Your task to perform on an android device: check google app version Image 0: 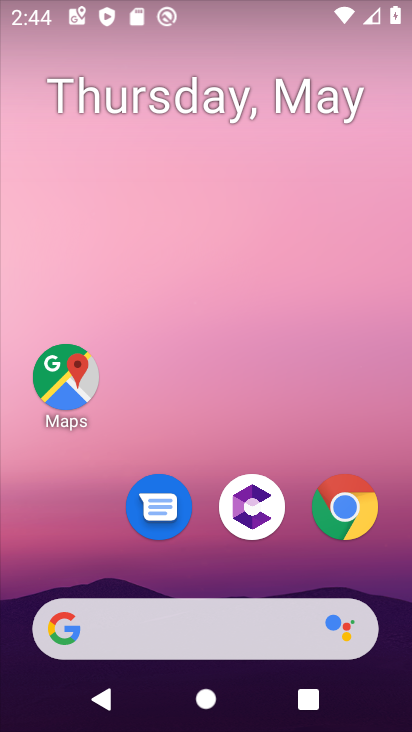
Step 0: press home button
Your task to perform on an android device: check google app version Image 1: 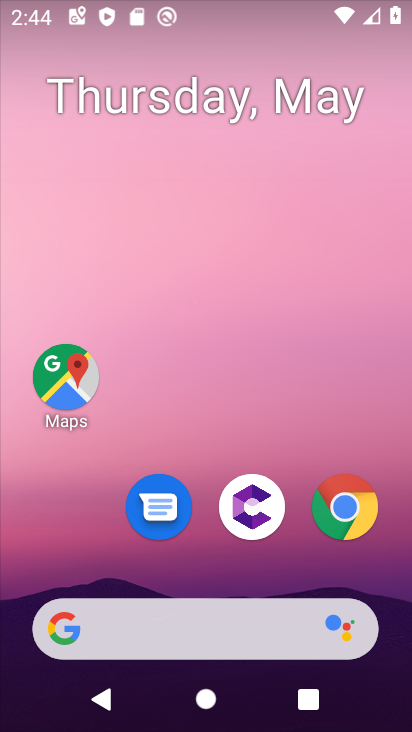
Step 1: press home button
Your task to perform on an android device: check google app version Image 2: 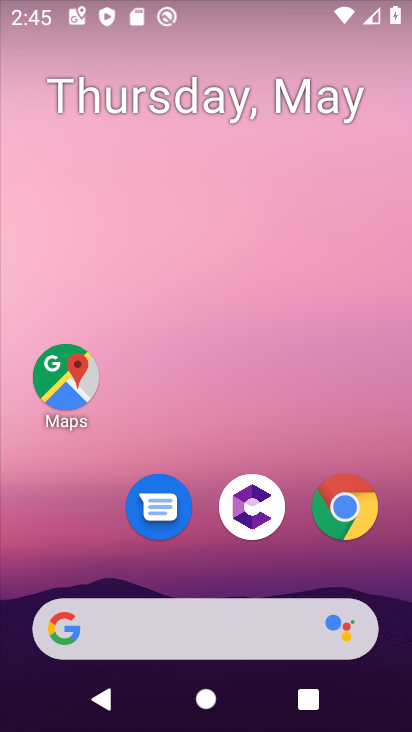
Step 2: drag from (304, 587) to (286, 222)
Your task to perform on an android device: check google app version Image 3: 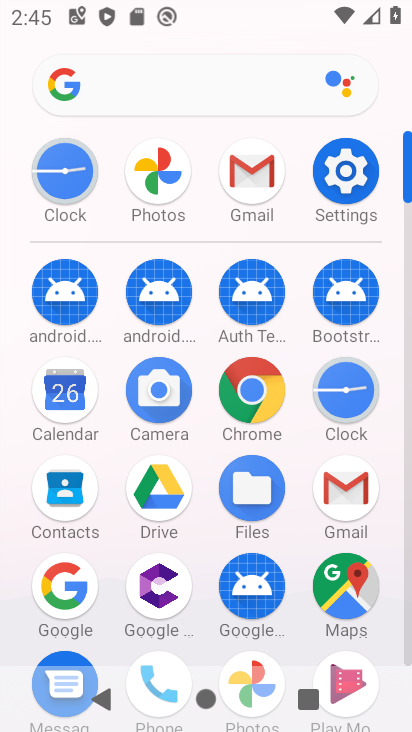
Step 3: click (67, 600)
Your task to perform on an android device: check google app version Image 4: 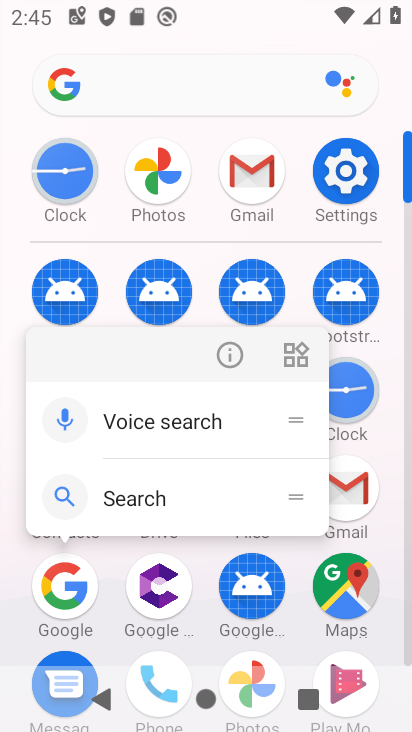
Step 4: click (228, 354)
Your task to perform on an android device: check google app version Image 5: 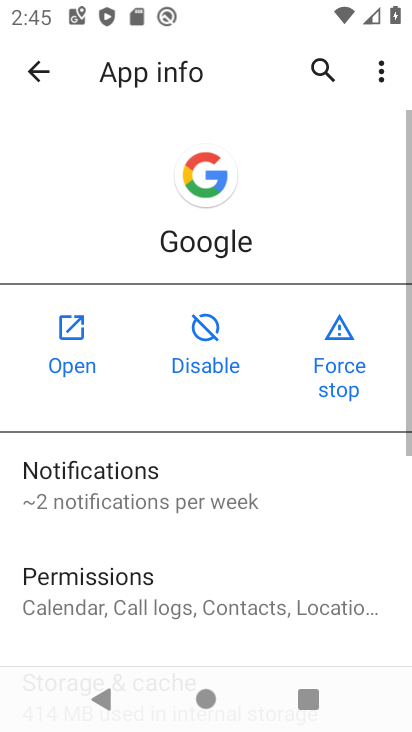
Step 5: drag from (306, 586) to (214, 193)
Your task to perform on an android device: check google app version Image 6: 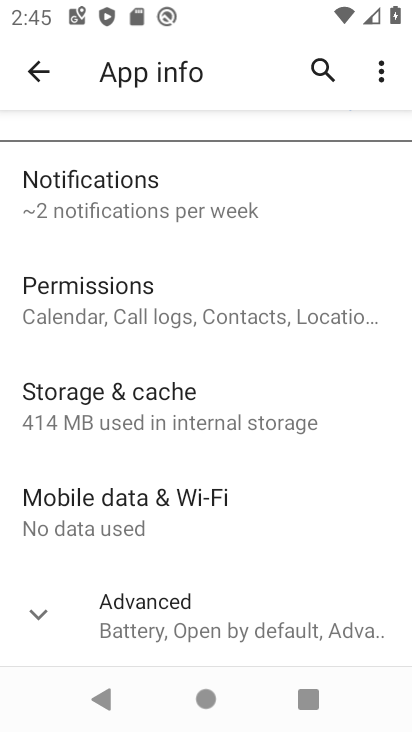
Step 6: click (145, 601)
Your task to perform on an android device: check google app version Image 7: 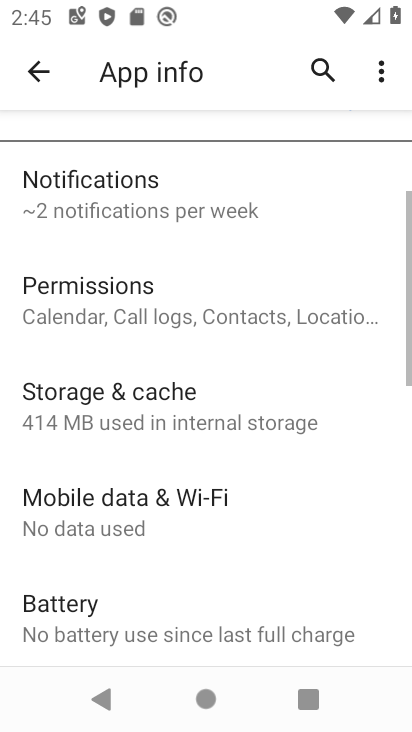
Step 7: task complete